Your task to perform on an android device: What is the recent news? Image 0: 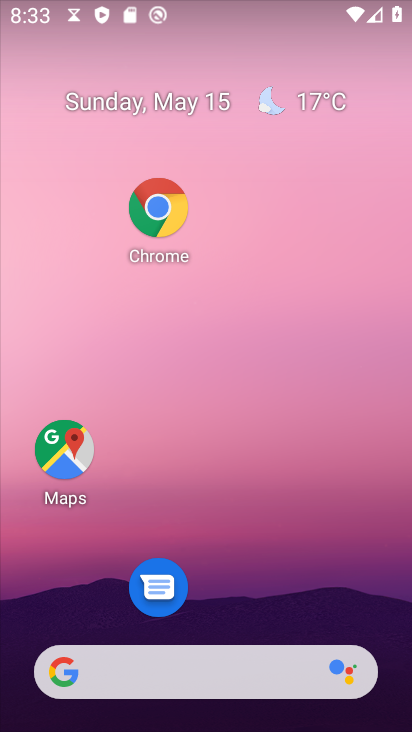
Step 0: drag from (354, 683) to (248, 425)
Your task to perform on an android device: What is the recent news? Image 1: 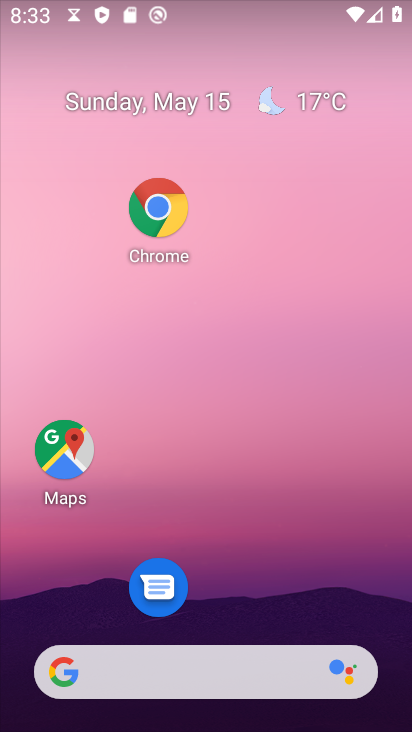
Step 1: task complete